Your task to perform on an android device: change your default location settings in chrome Image 0: 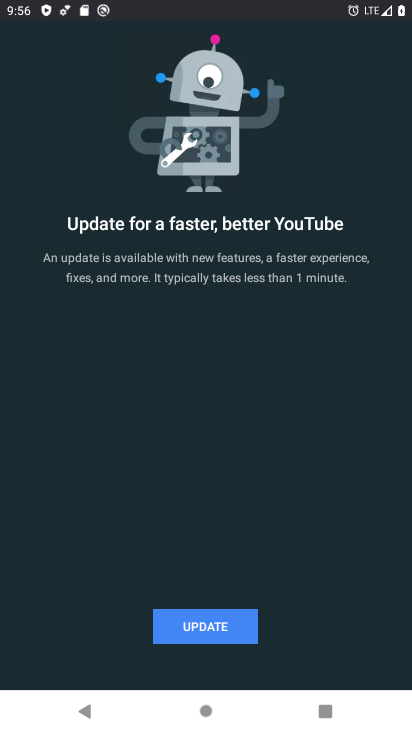
Step 0: press home button
Your task to perform on an android device: change your default location settings in chrome Image 1: 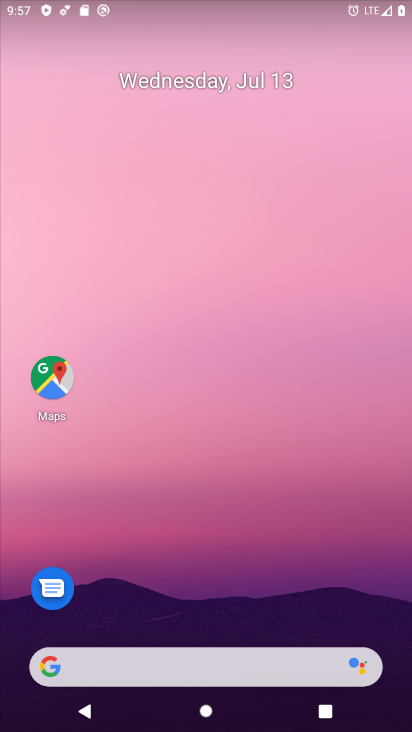
Step 1: drag from (144, 646) to (225, 27)
Your task to perform on an android device: change your default location settings in chrome Image 2: 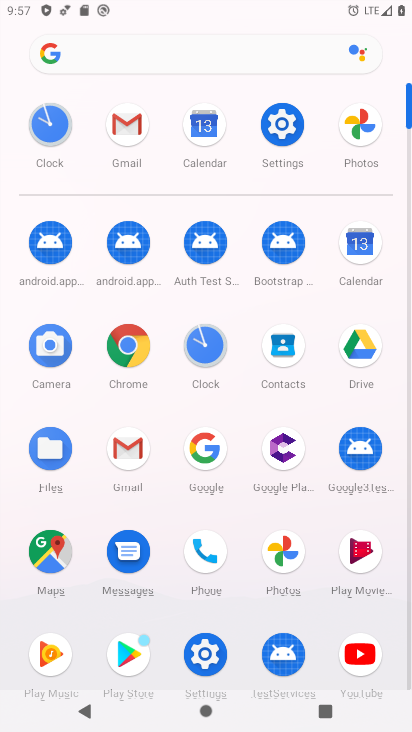
Step 2: click (114, 334)
Your task to perform on an android device: change your default location settings in chrome Image 3: 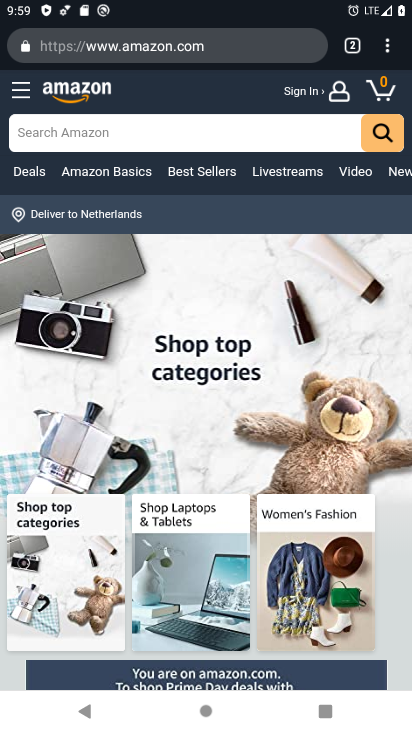
Step 3: click (390, 41)
Your task to perform on an android device: change your default location settings in chrome Image 4: 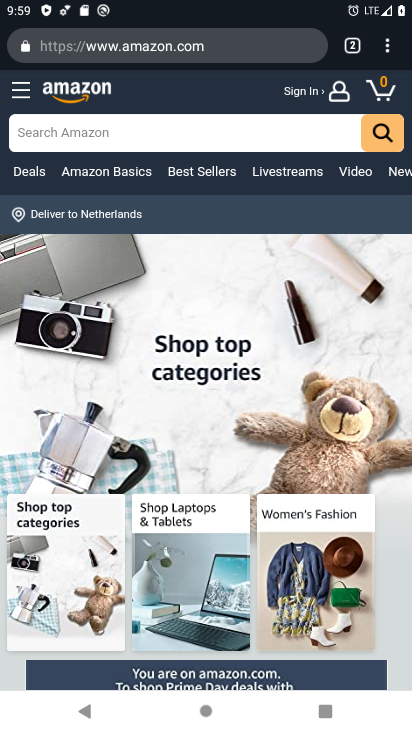
Step 4: click (388, 49)
Your task to perform on an android device: change your default location settings in chrome Image 5: 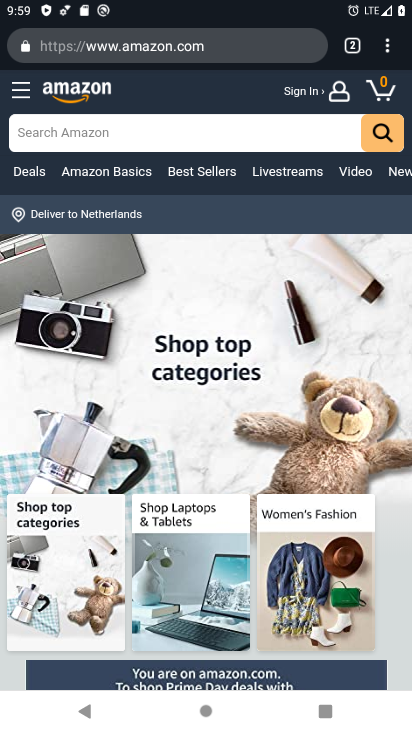
Step 5: click (388, 49)
Your task to perform on an android device: change your default location settings in chrome Image 6: 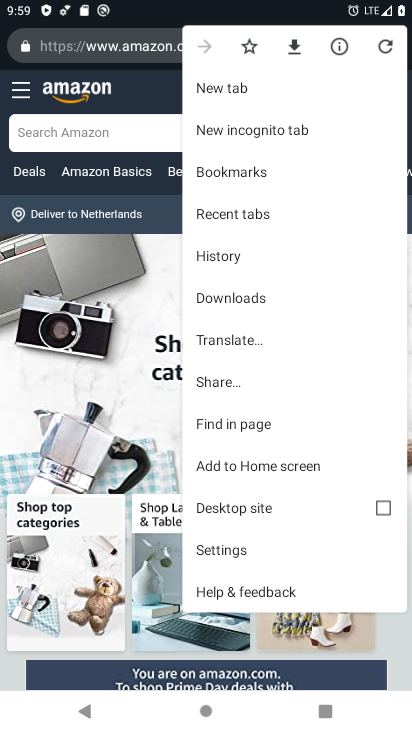
Step 6: click (242, 540)
Your task to perform on an android device: change your default location settings in chrome Image 7: 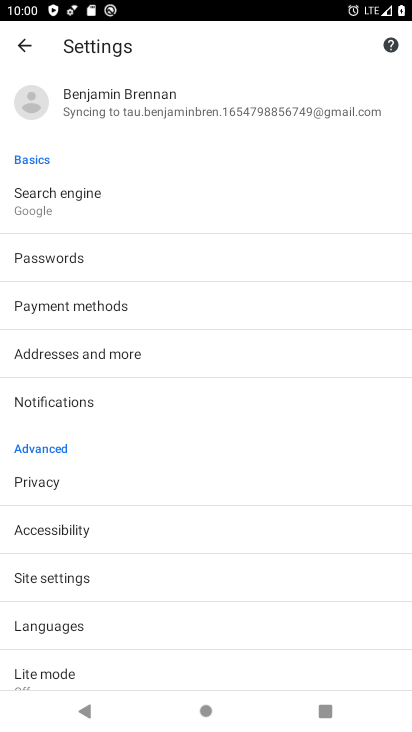
Step 7: click (83, 580)
Your task to perform on an android device: change your default location settings in chrome Image 8: 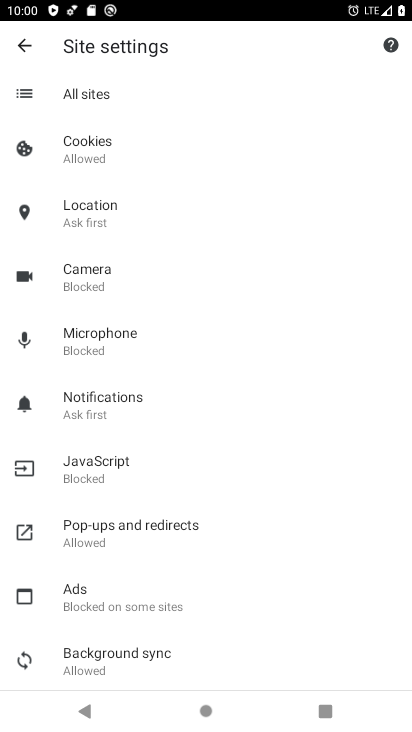
Step 8: click (185, 202)
Your task to perform on an android device: change your default location settings in chrome Image 9: 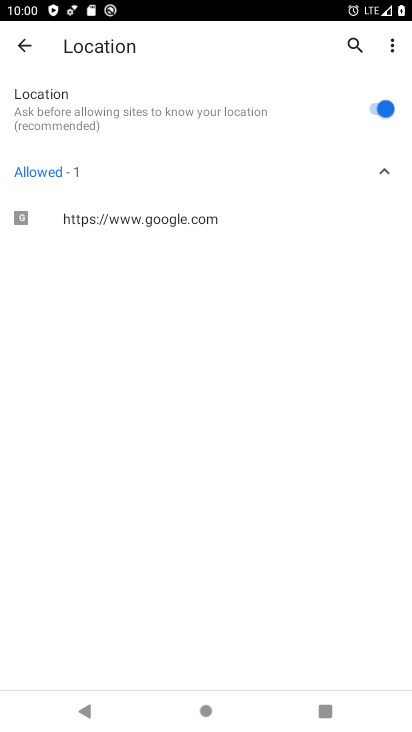
Step 9: click (391, 100)
Your task to perform on an android device: change your default location settings in chrome Image 10: 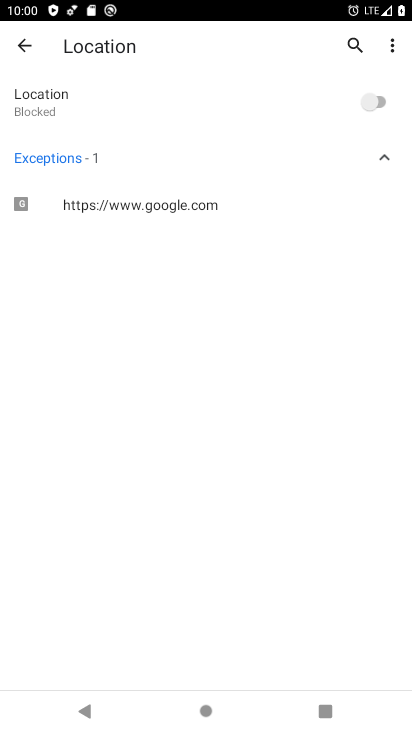
Step 10: task complete